Your task to perform on an android device: change the clock display to show seconds Image 0: 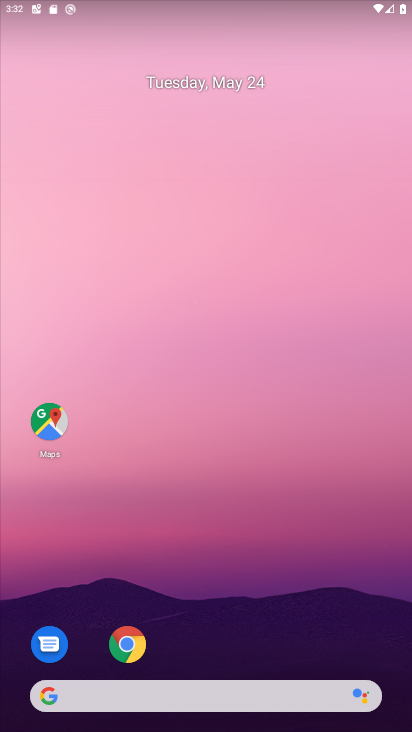
Step 0: drag from (323, 625) to (170, 146)
Your task to perform on an android device: change the clock display to show seconds Image 1: 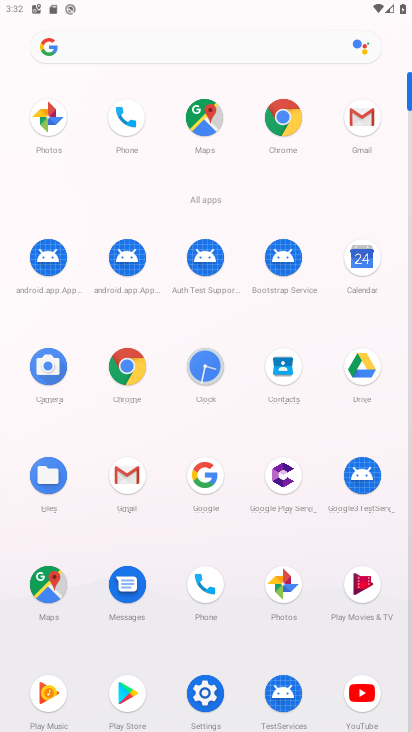
Step 1: click (214, 408)
Your task to perform on an android device: change the clock display to show seconds Image 2: 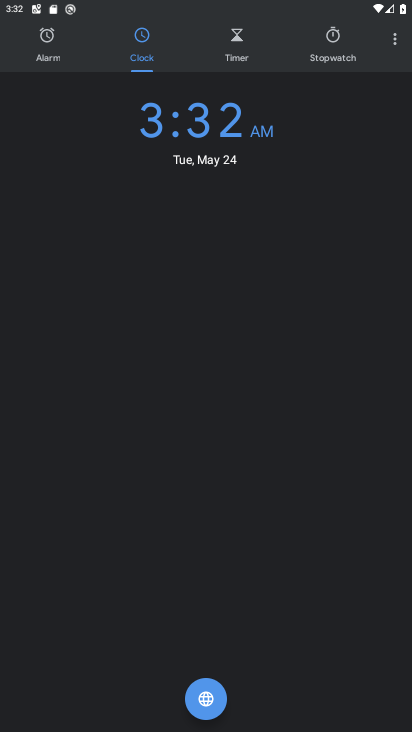
Step 2: click (389, 32)
Your task to perform on an android device: change the clock display to show seconds Image 3: 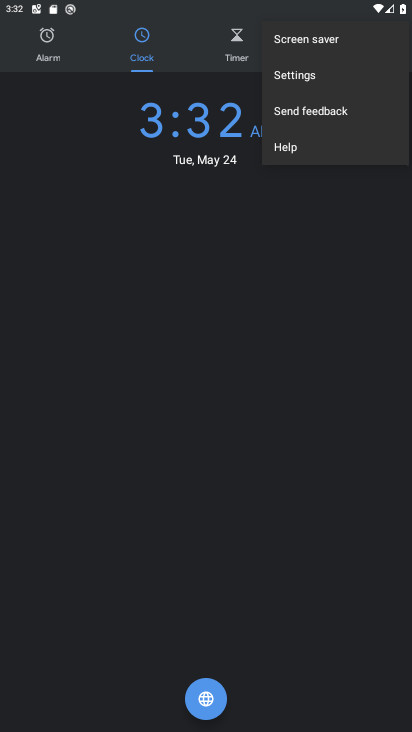
Step 3: click (357, 72)
Your task to perform on an android device: change the clock display to show seconds Image 4: 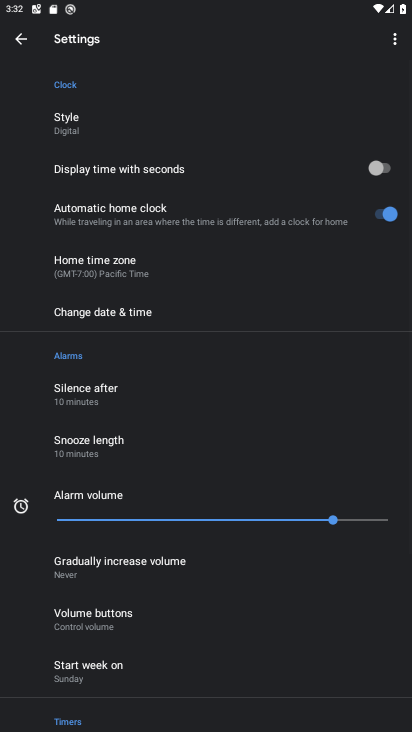
Step 4: click (363, 170)
Your task to perform on an android device: change the clock display to show seconds Image 5: 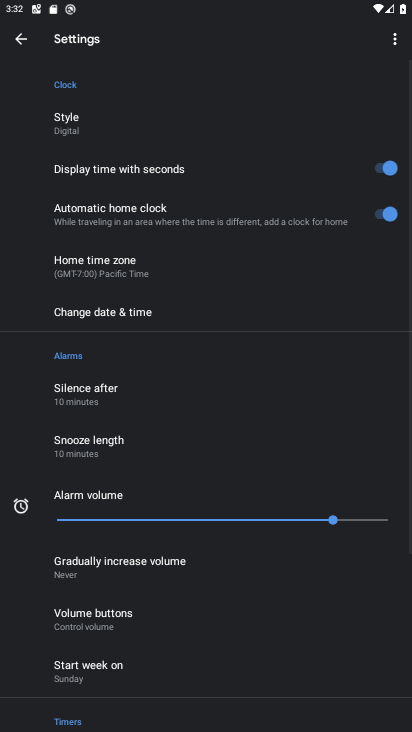
Step 5: task complete